Your task to perform on an android device: turn off notifications settings in the gmail app Image 0: 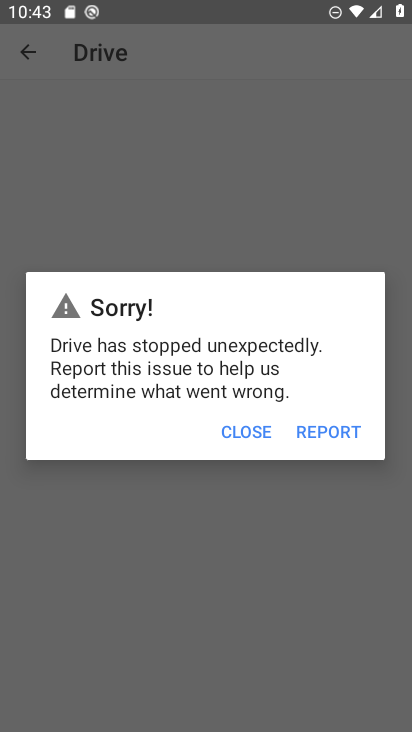
Step 0: press home button
Your task to perform on an android device: turn off notifications settings in the gmail app Image 1: 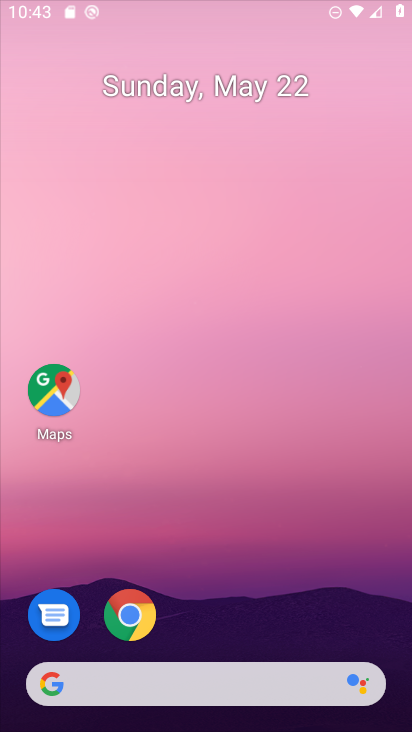
Step 1: drag from (366, 511) to (291, 49)
Your task to perform on an android device: turn off notifications settings in the gmail app Image 2: 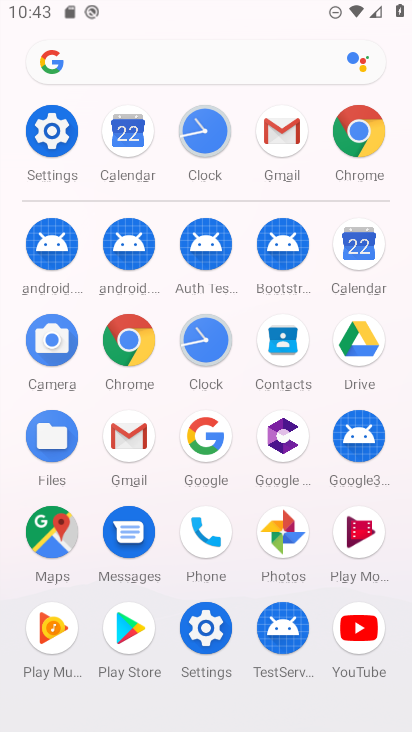
Step 2: click (301, 118)
Your task to perform on an android device: turn off notifications settings in the gmail app Image 3: 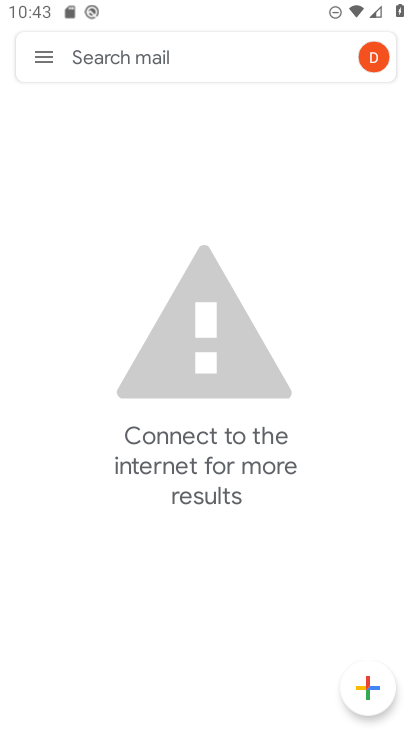
Step 3: click (62, 52)
Your task to perform on an android device: turn off notifications settings in the gmail app Image 4: 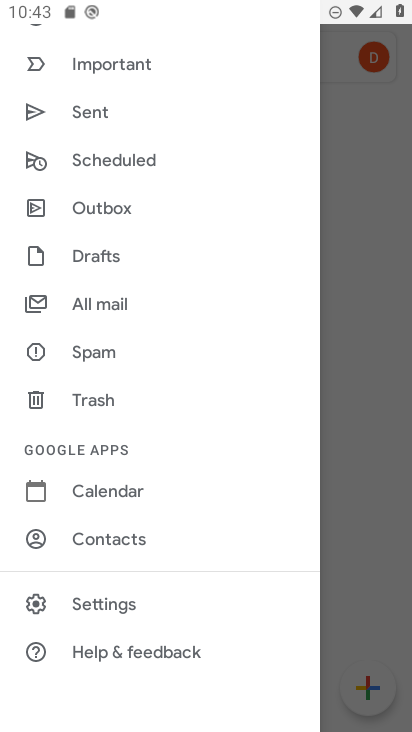
Step 4: click (160, 595)
Your task to perform on an android device: turn off notifications settings in the gmail app Image 5: 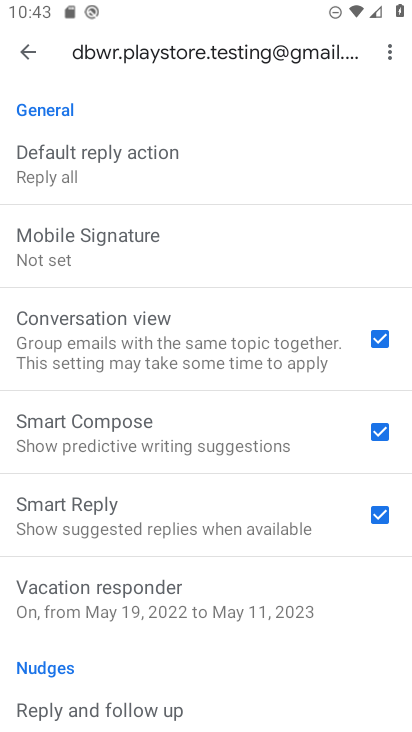
Step 5: drag from (120, 167) to (267, 681)
Your task to perform on an android device: turn off notifications settings in the gmail app Image 6: 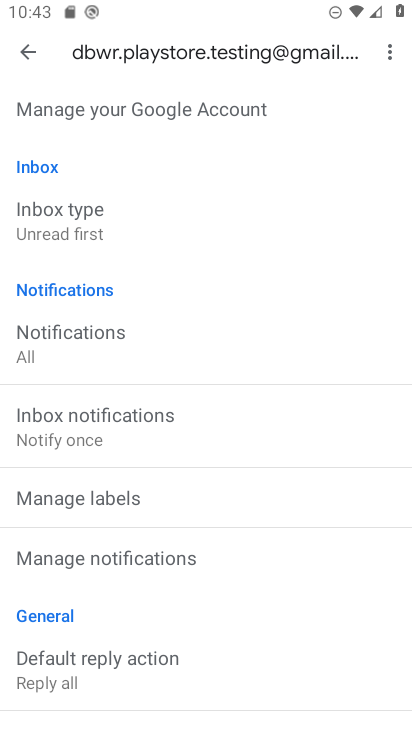
Step 6: click (108, 566)
Your task to perform on an android device: turn off notifications settings in the gmail app Image 7: 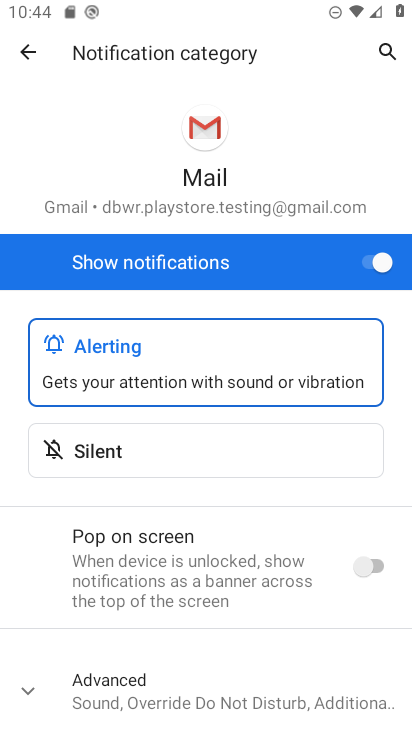
Step 7: click (383, 264)
Your task to perform on an android device: turn off notifications settings in the gmail app Image 8: 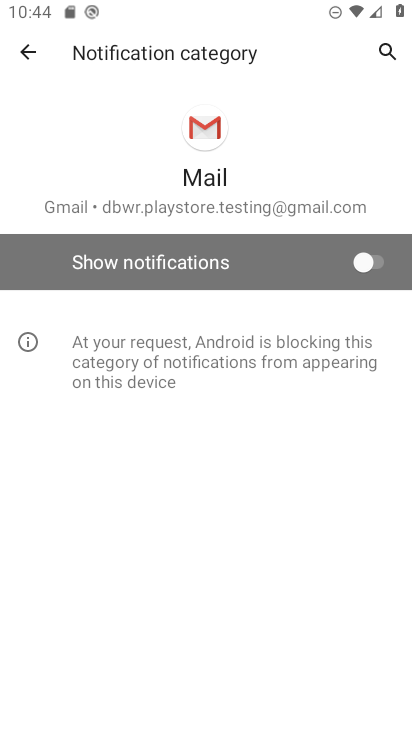
Step 8: task complete